Your task to perform on an android device: visit the assistant section in the google photos Image 0: 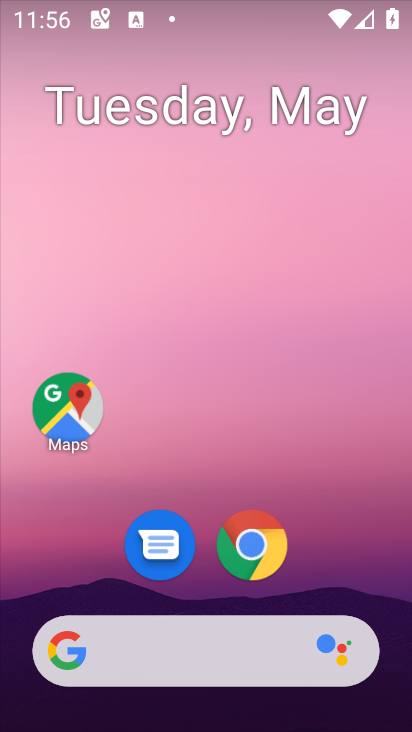
Step 0: drag from (209, 580) to (256, 225)
Your task to perform on an android device: visit the assistant section in the google photos Image 1: 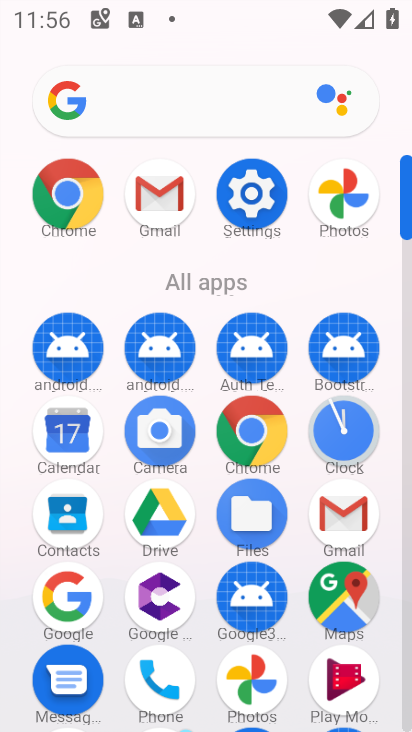
Step 1: click (251, 676)
Your task to perform on an android device: visit the assistant section in the google photos Image 2: 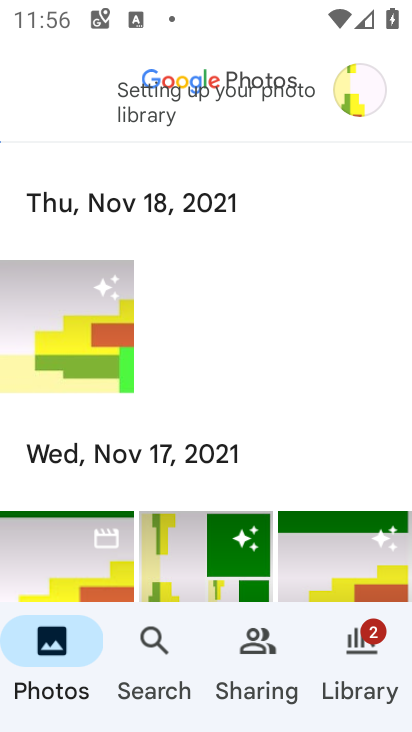
Step 2: task complete